Your task to perform on an android device: Is it going to rain today? Image 0: 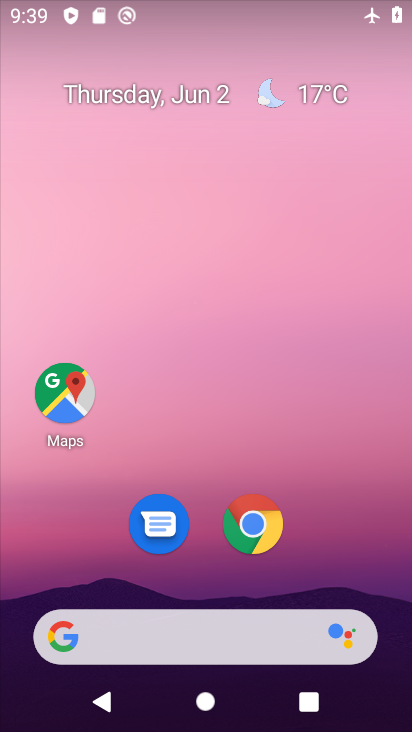
Step 0: click (219, 623)
Your task to perform on an android device: Is it going to rain today? Image 1: 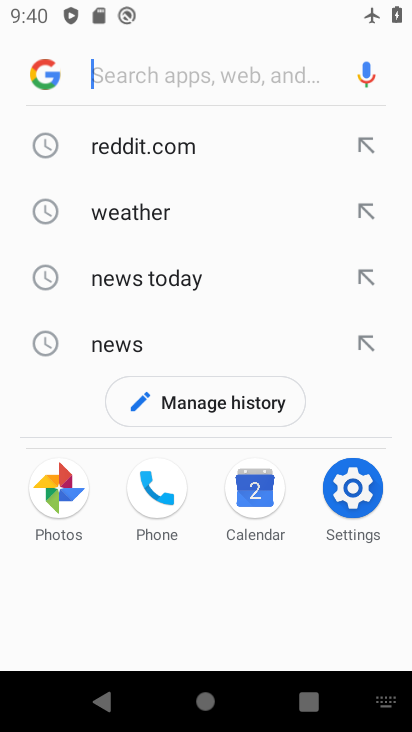
Step 1: click (90, 200)
Your task to perform on an android device: Is it going to rain today? Image 2: 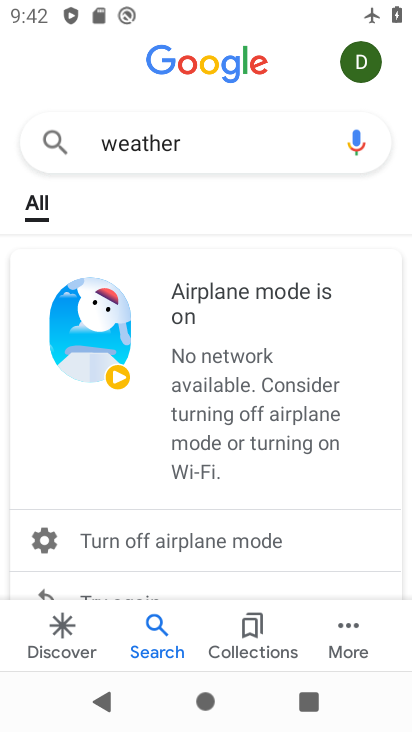
Step 2: task complete